Your task to perform on an android device: uninstall "Reddit" Image 0: 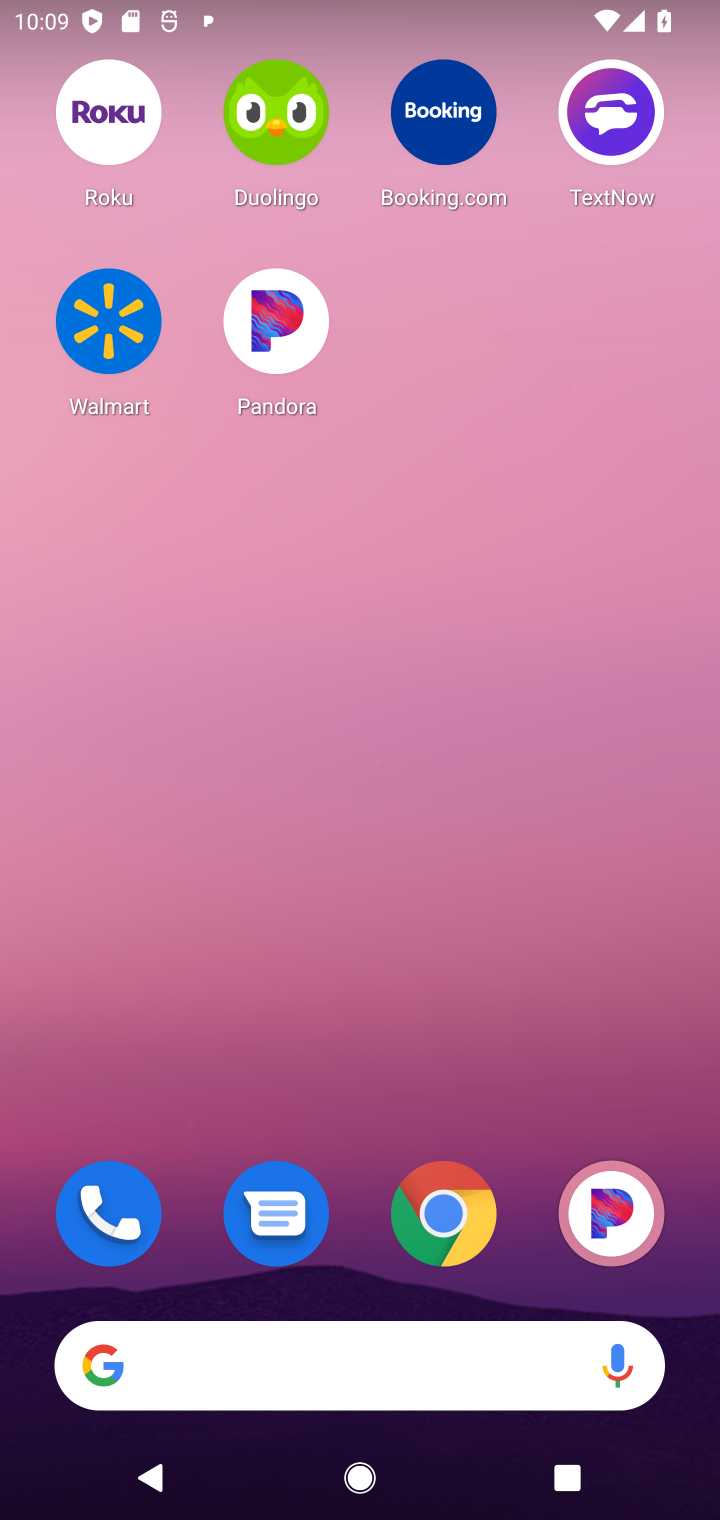
Step 0: drag from (307, 916) to (358, 425)
Your task to perform on an android device: uninstall "Reddit" Image 1: 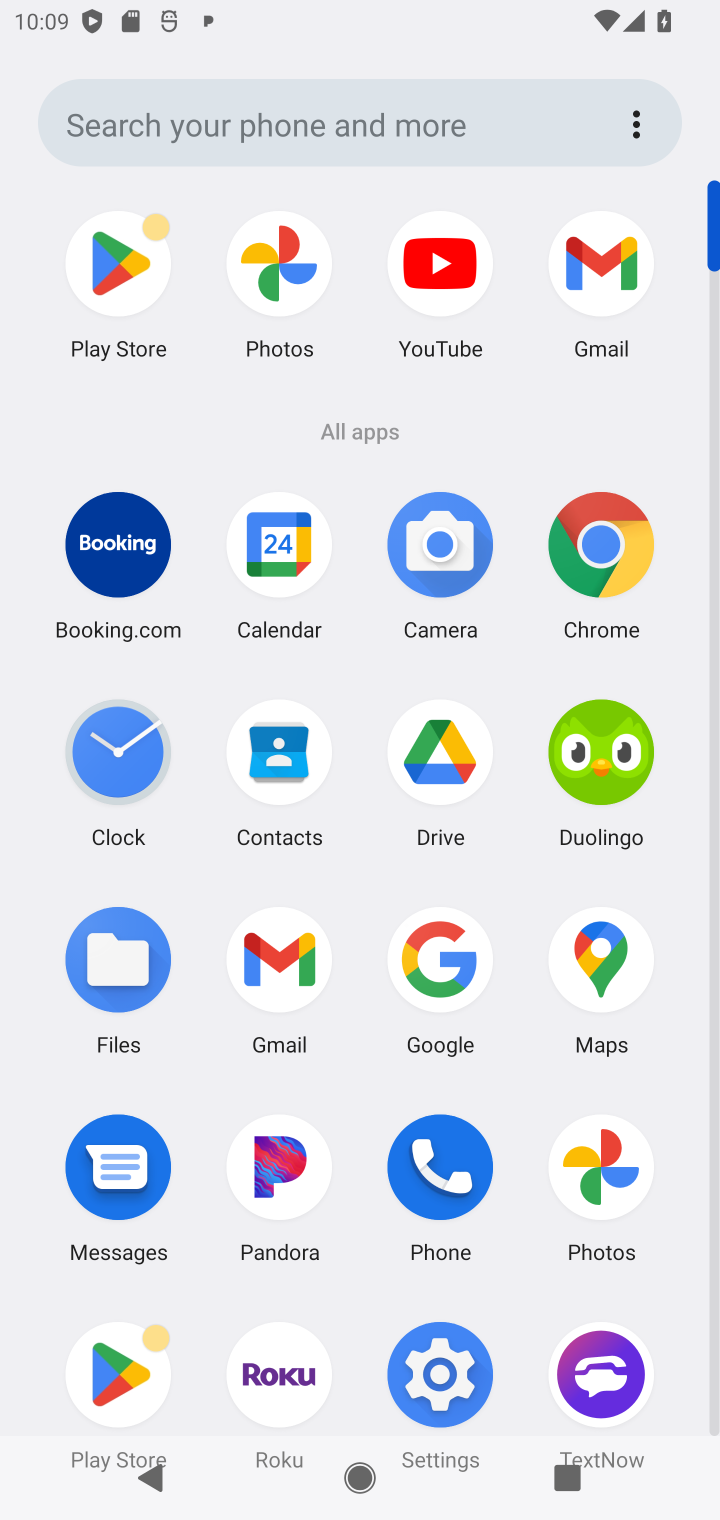
Step 1: click (142, 272)
Your task to perform on an android device: uninstall "Reddit" Image 2: 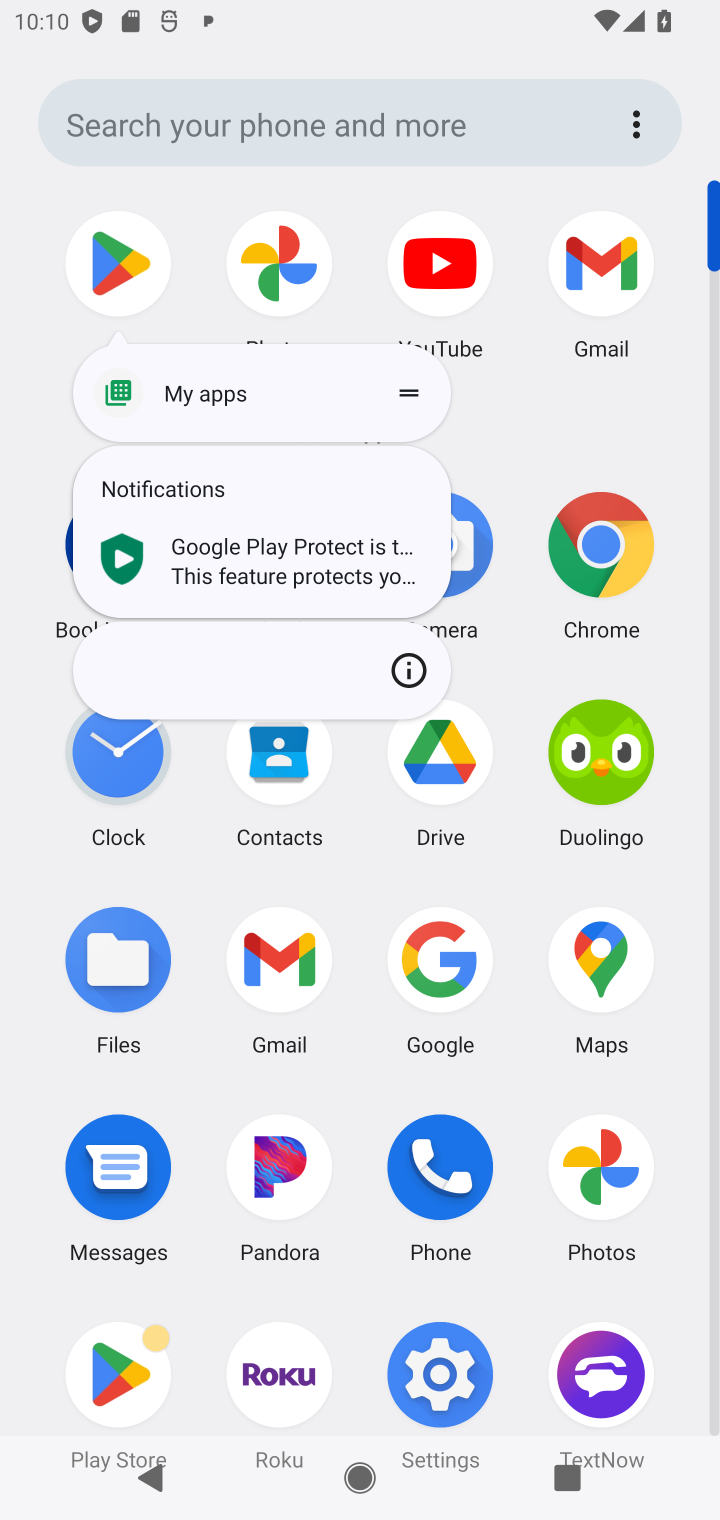
Step 2: click (146, 291)
Your task to perform on an android device: uninstall "Reddit" Image 3: 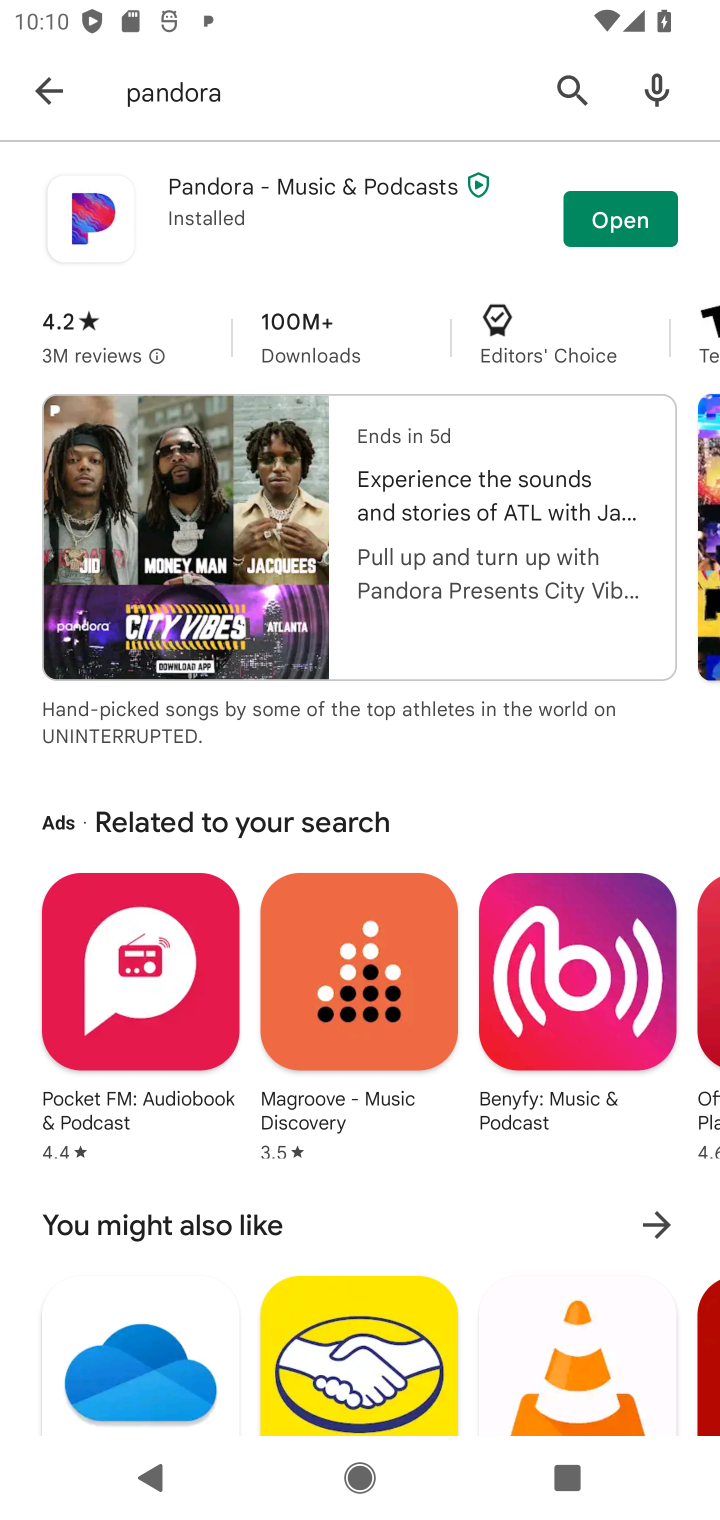
Step 3: click (220, 92)
Your task to perform on an android device: uninstall "Reddit" Image 4: 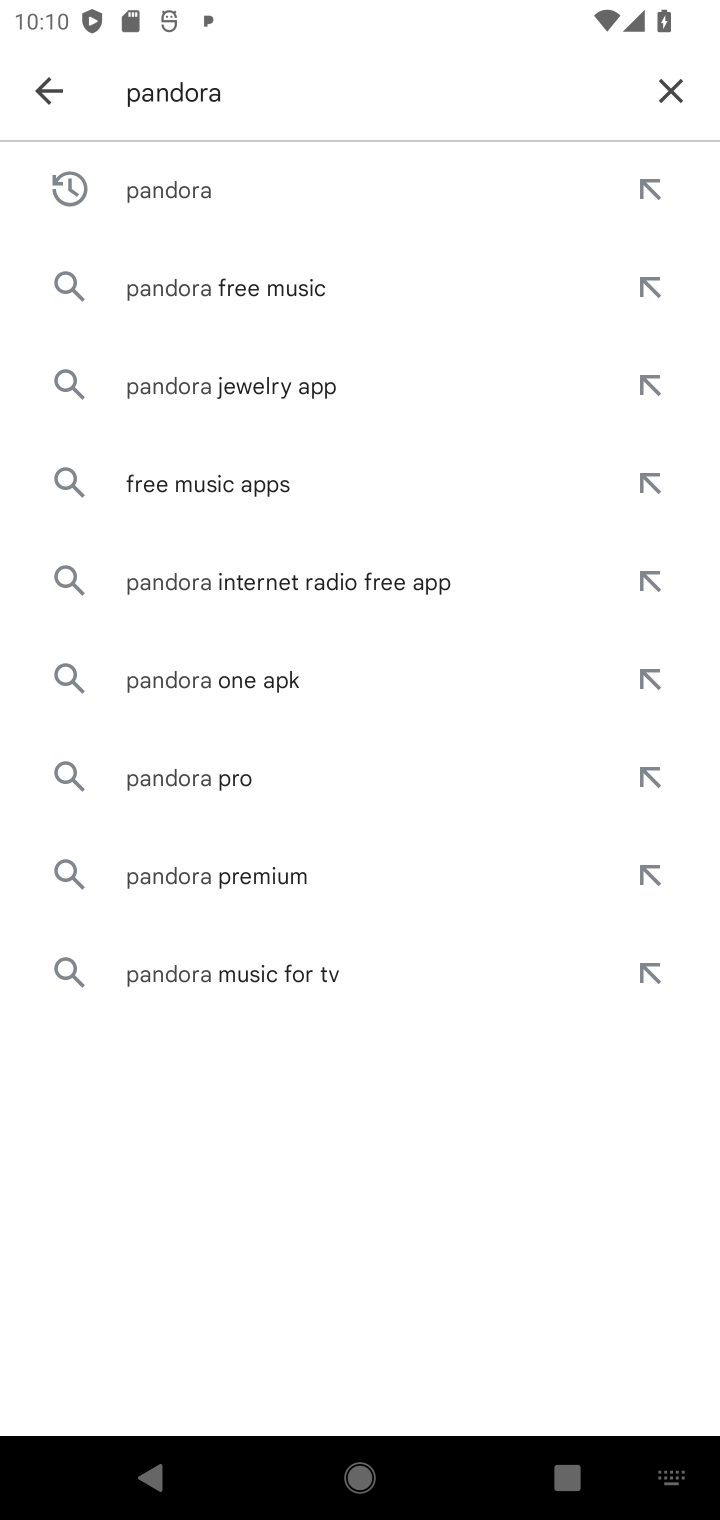
Step 4: click (668, 84)
Your task to perform on an android device: uninstall "Reddit" Image 5: 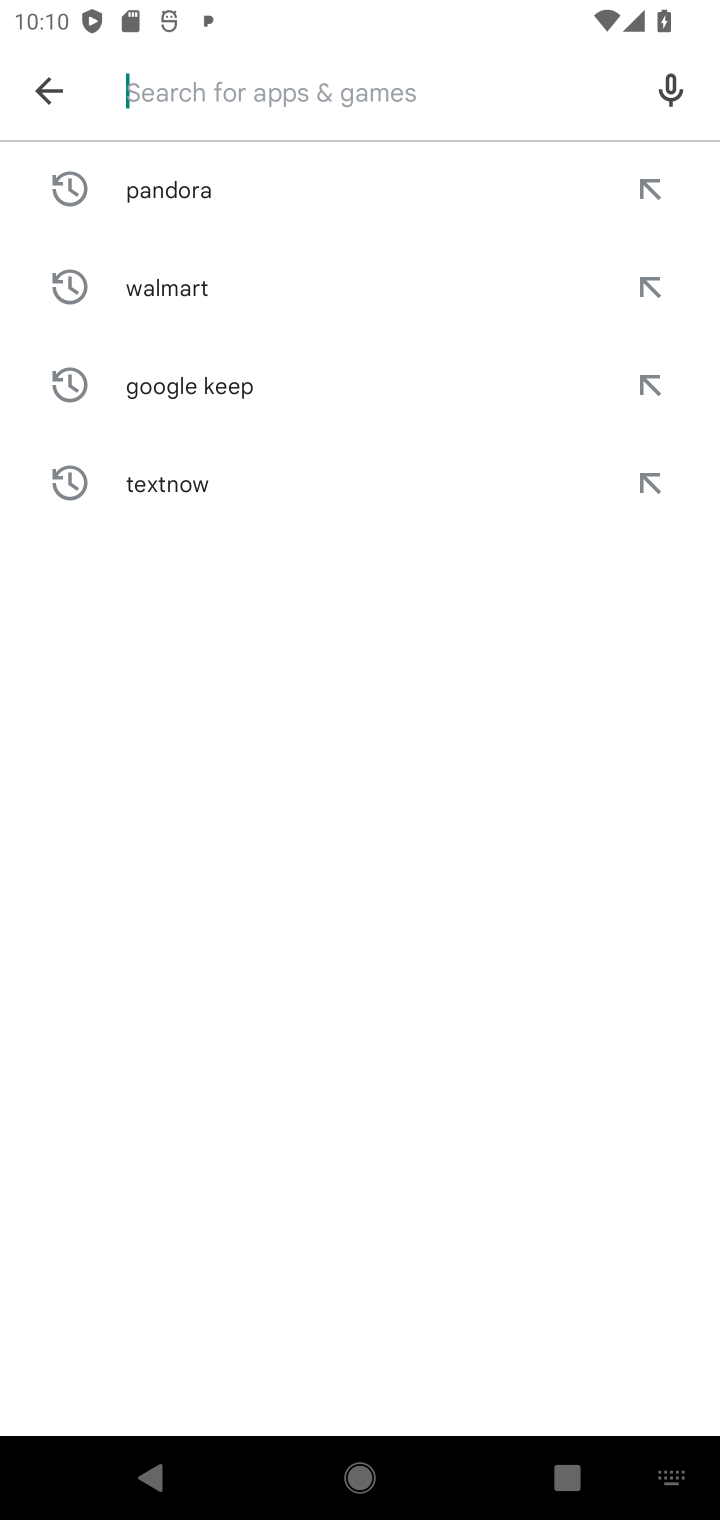
Step 5: type "Reddit"
Your task to perform on an android device: uninstall "Reddit" Image 6: 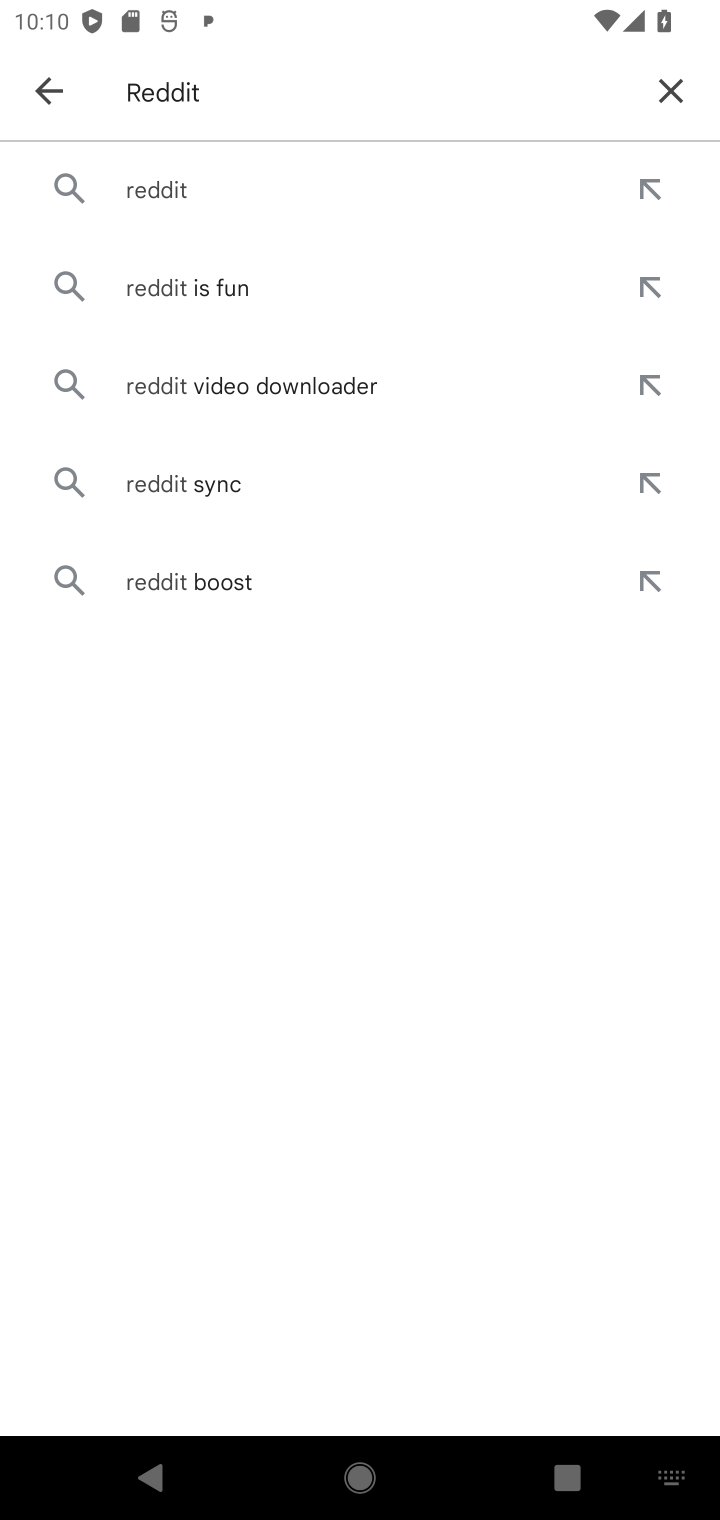
Step 6: click (196, 184)
Your task to perform on an android device: uninstall "Reddit" Image 7: 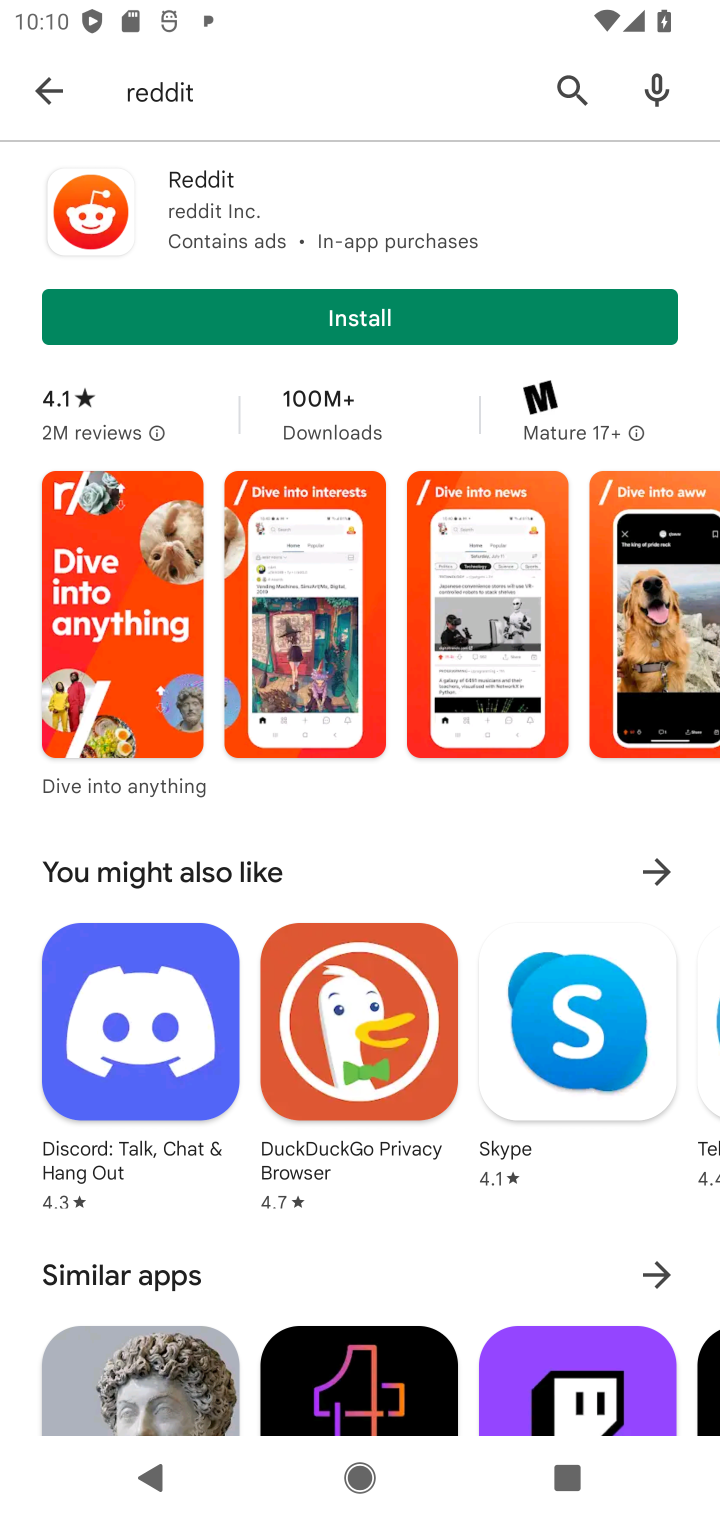
Step 7: task complete